Your task to perform on an android device: uninstall "Calculator" Image 0: 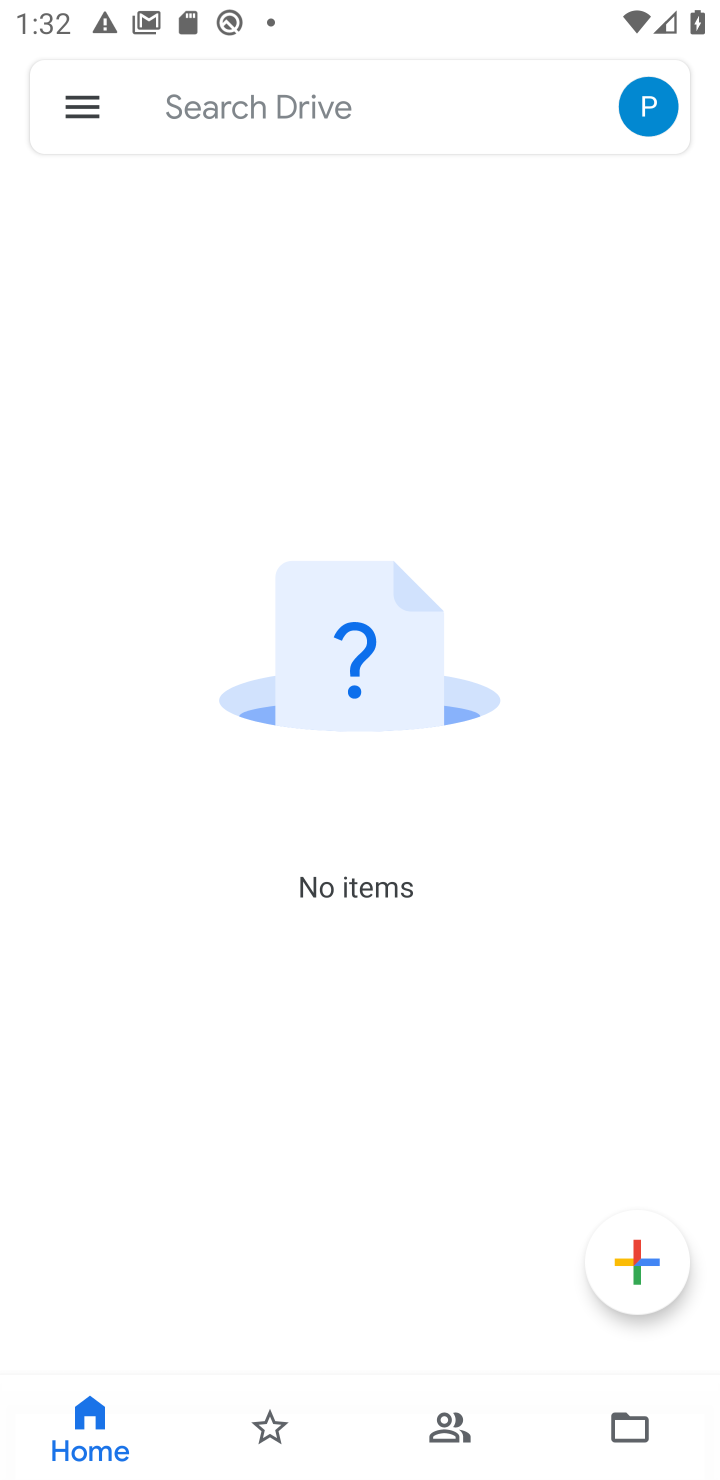
Step 0: press back button
Your task to perform on an android device: uninstall "Calculator" Image 1: 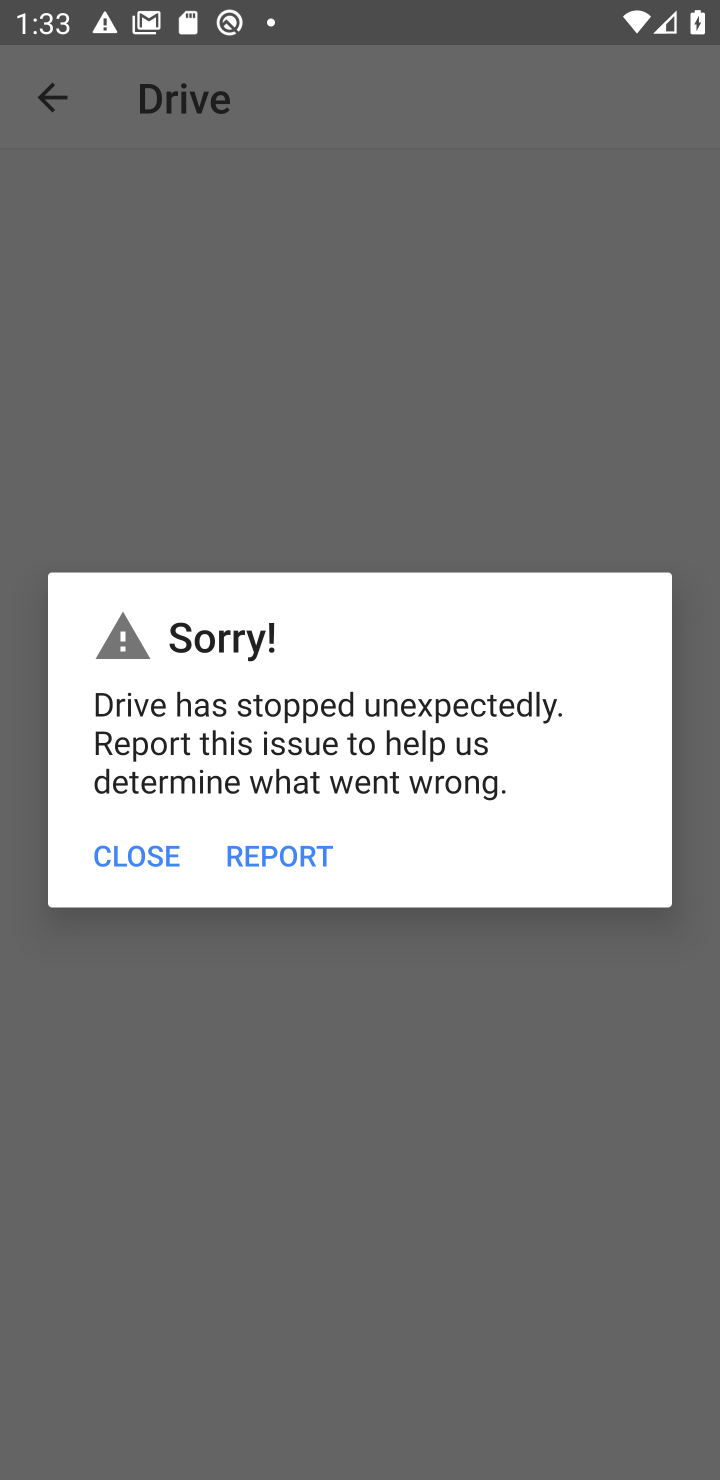
Step 1: press home button
Your task to perform on an android device: uninstall "Calculator" Image 2: 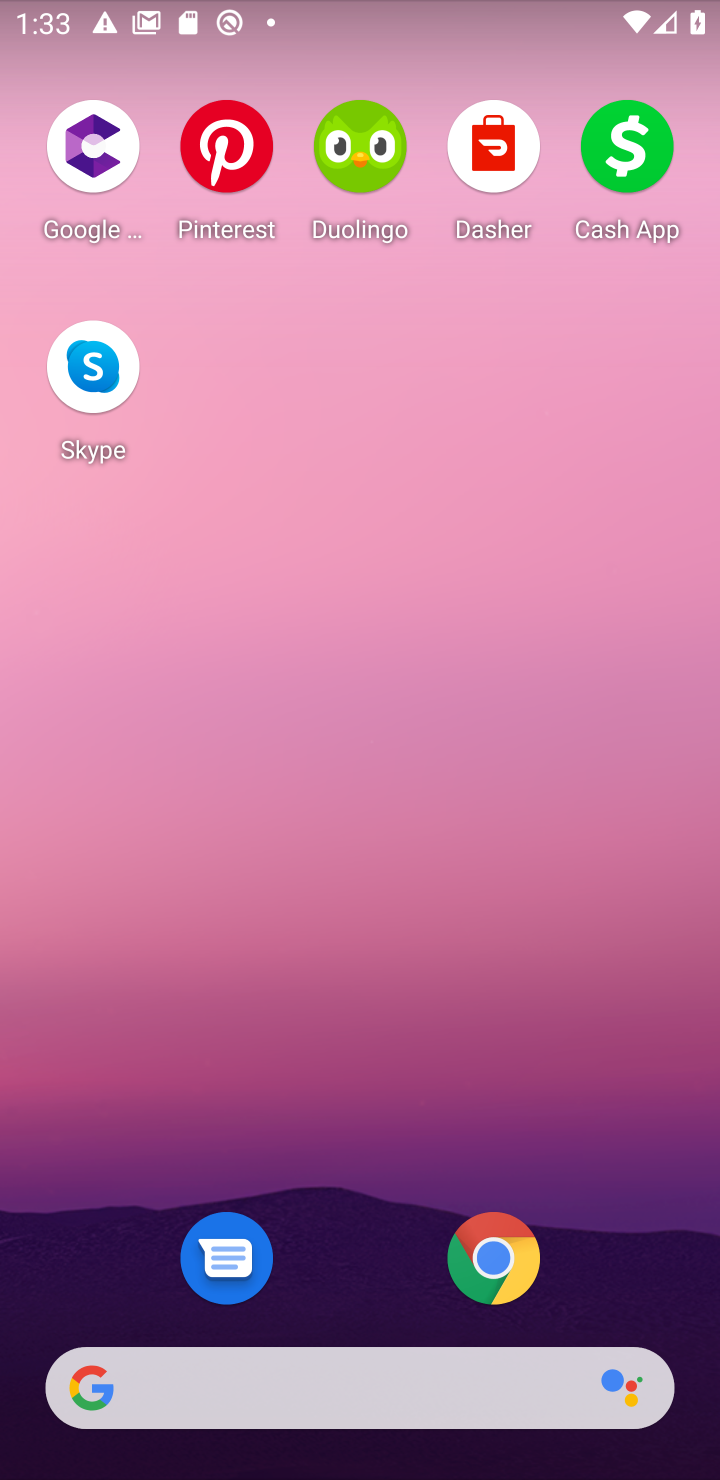
Step 2: drag from (412, 850) to (539, 107)
Your task to perform on an android device: uninstall "Calculator" Image 3: 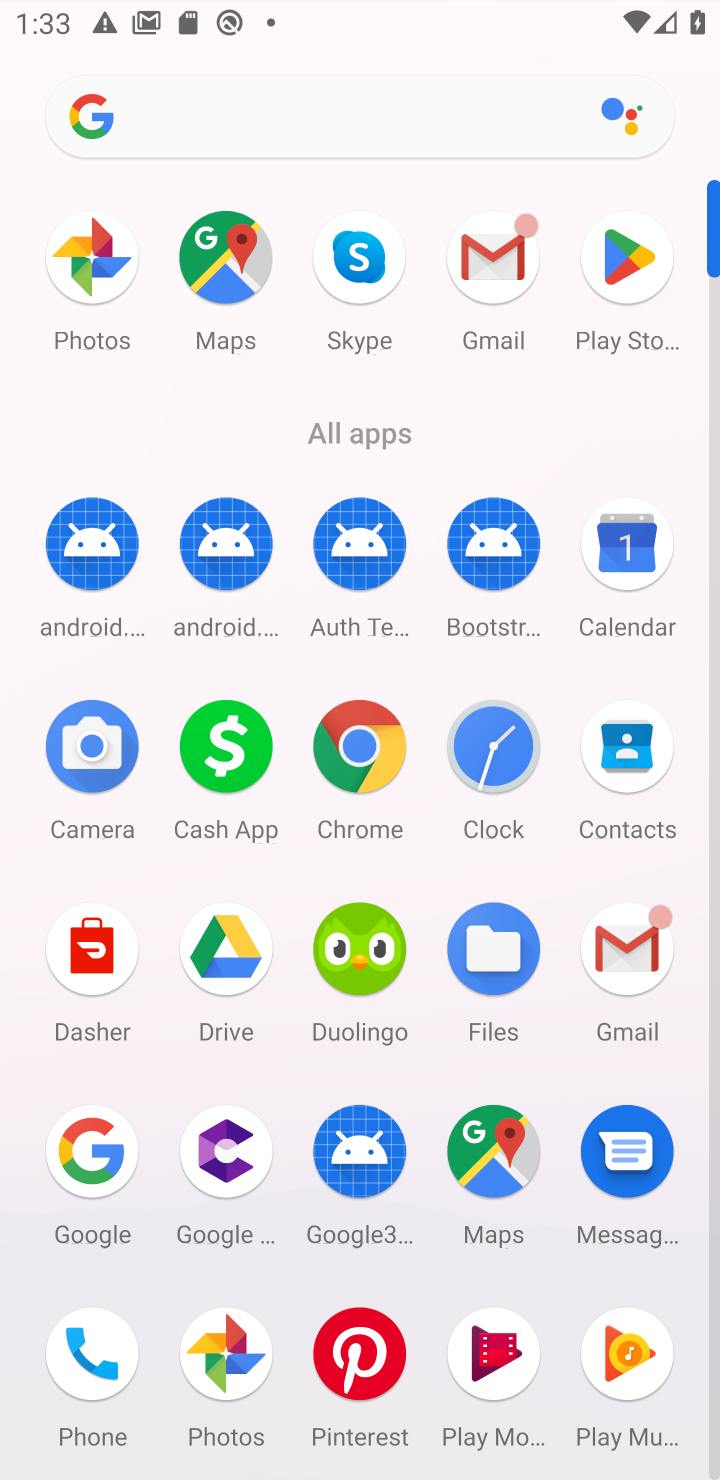
Step 3: click (631, 272)
Your task to perform on an android device: uninstall "Calculator" Image 4: 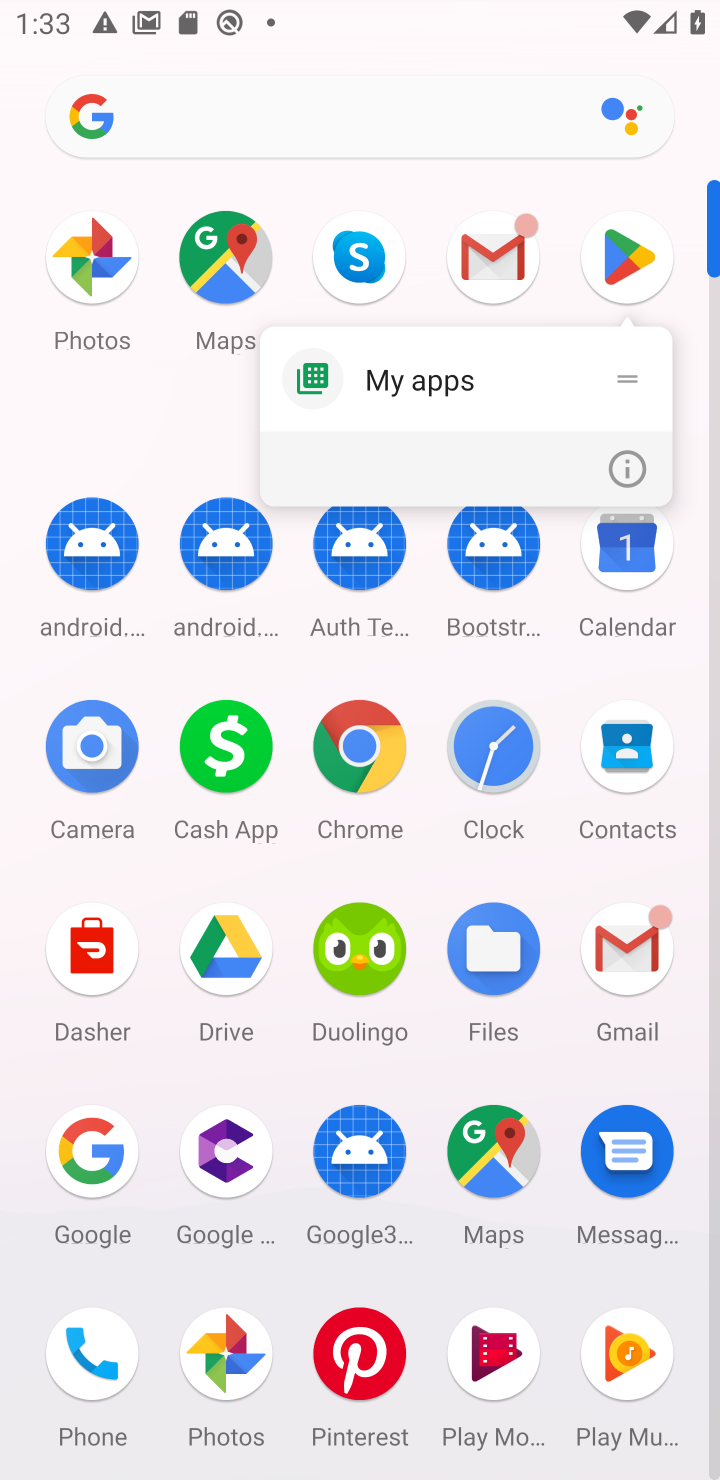
Step 4: click (643, 233)
Your task to perform on an android device: uninstall "Calculator" Image 5: 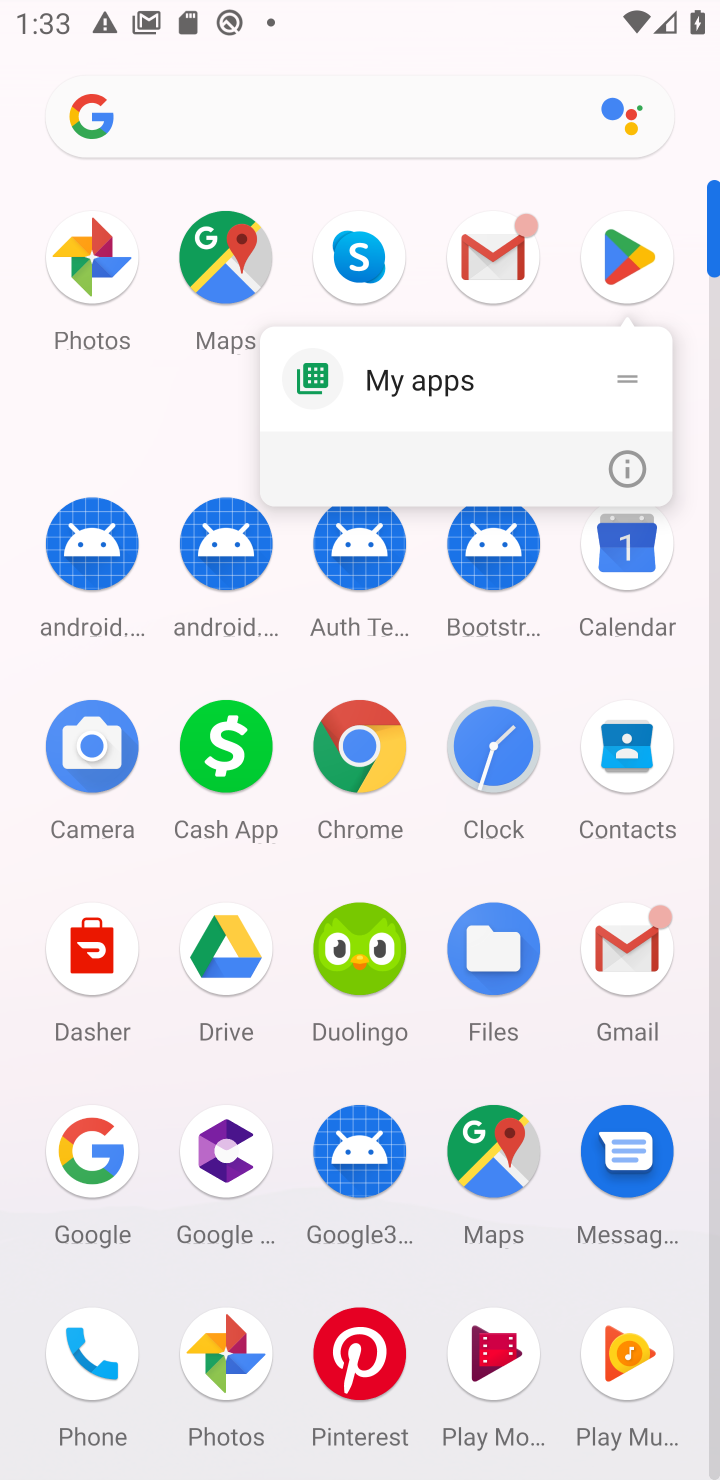
Step 5: click (632, 250)
Your task to perform on an android device: uninstall "Calculator" Image 6: 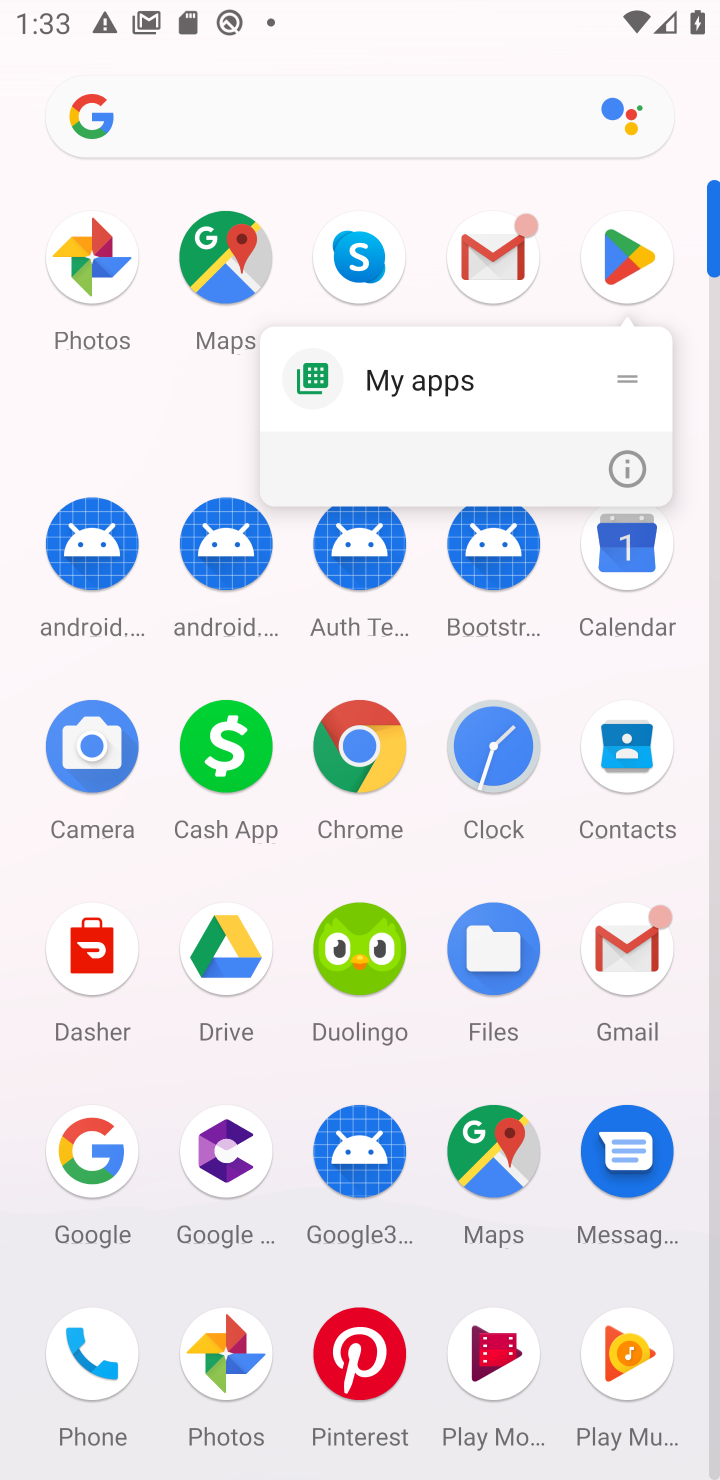
Step 6: click (628, 257)
Your task to perform on an android device: uninstall "Calculator" Image 7: 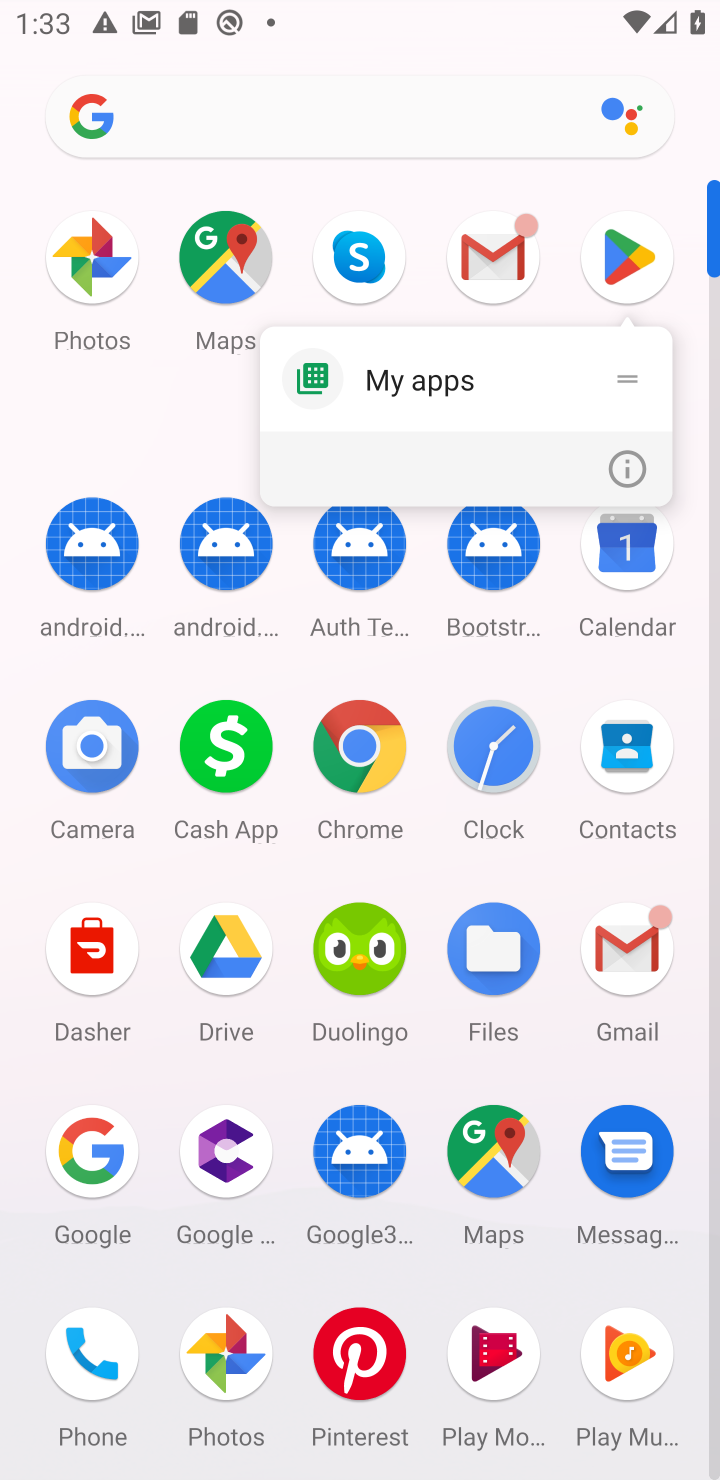
Step 7: click (639, 245)
Your task to perform on an android device: uninstall "Calculator" Image 8: 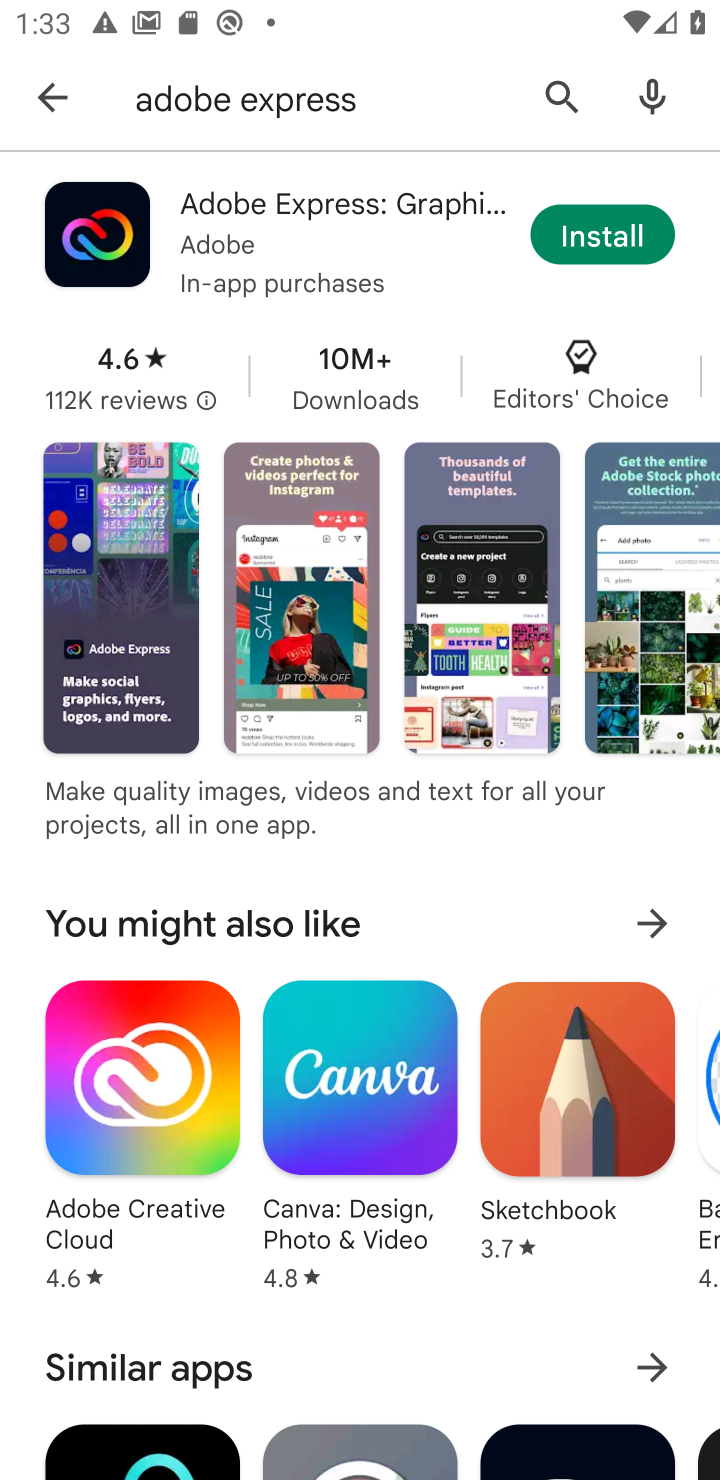
Step 8: click (629, 251)
Your task to perform on an android device: uninstall "Calculator" Image 9: 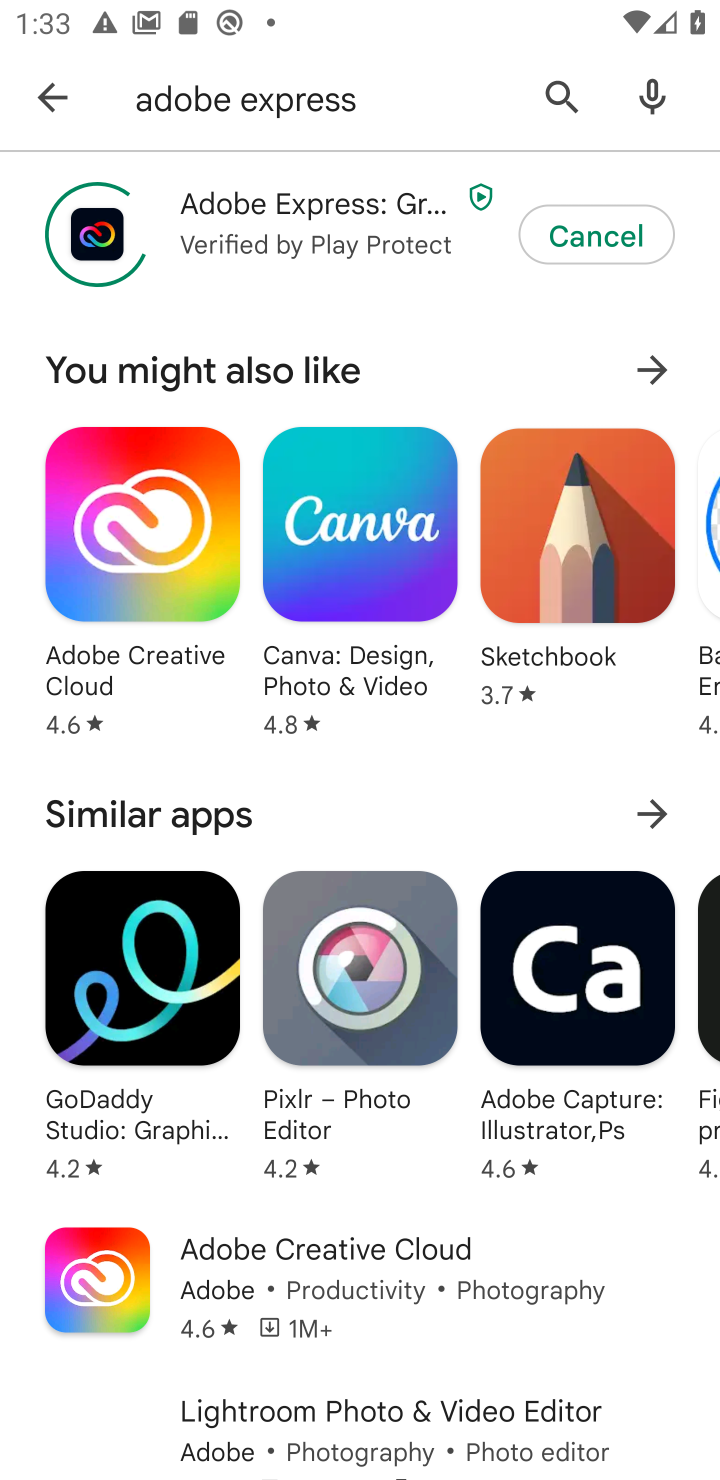
Step 9: click (635, 247)
Your task to perform on an android device: uninstall "Calculator" Image 10: 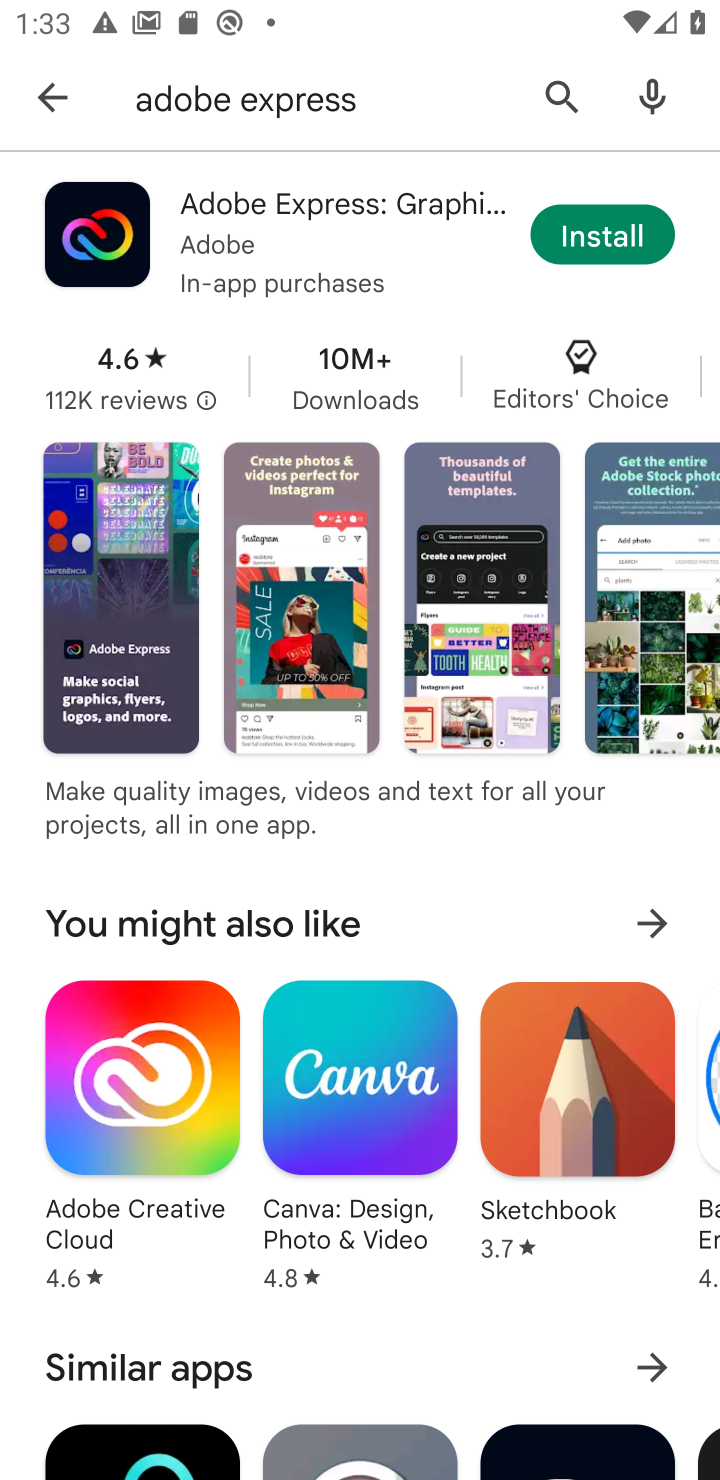
Step 10: click (560, 89)
Your task to perform on an android device: uninstall "Calculator" Image 11: 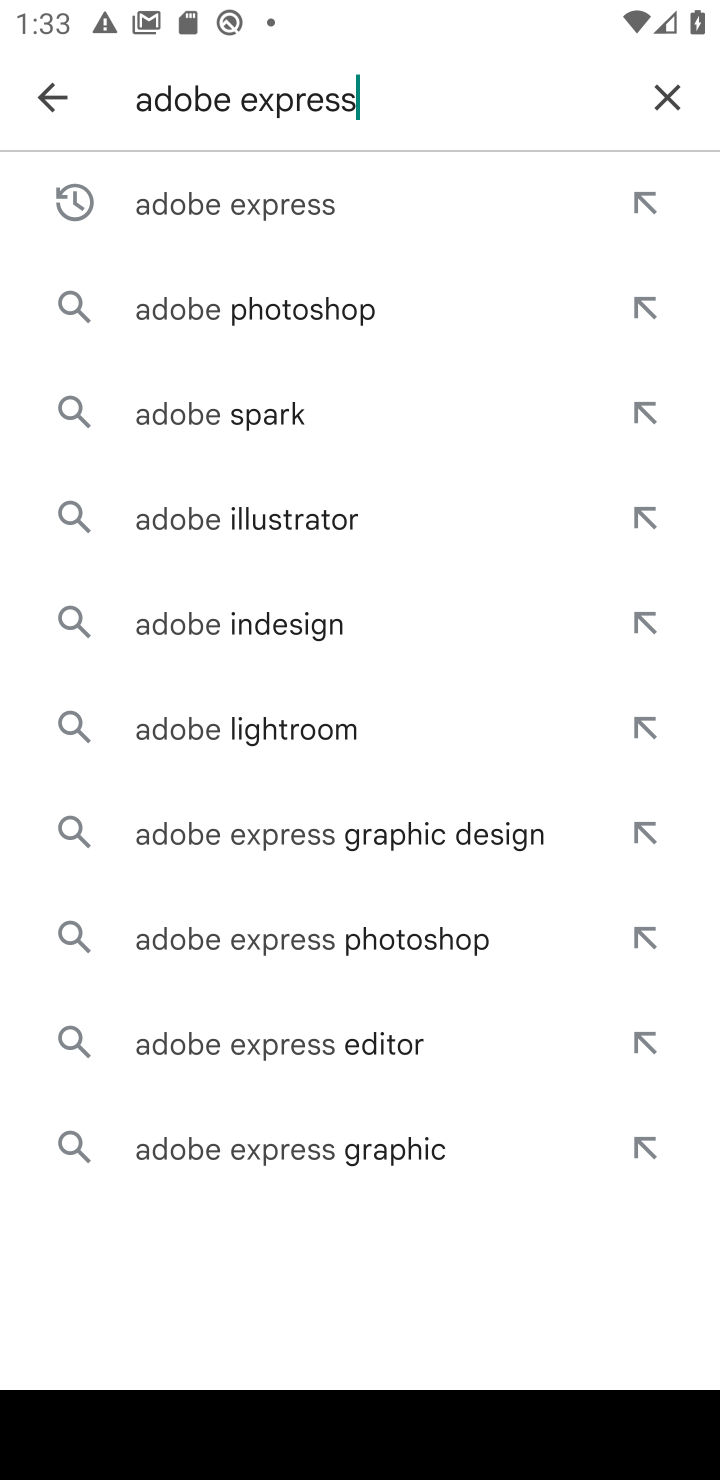
Step 11: click (696, 90)
Your task to perform on an android device: uninstall "Calculator" Image 12: 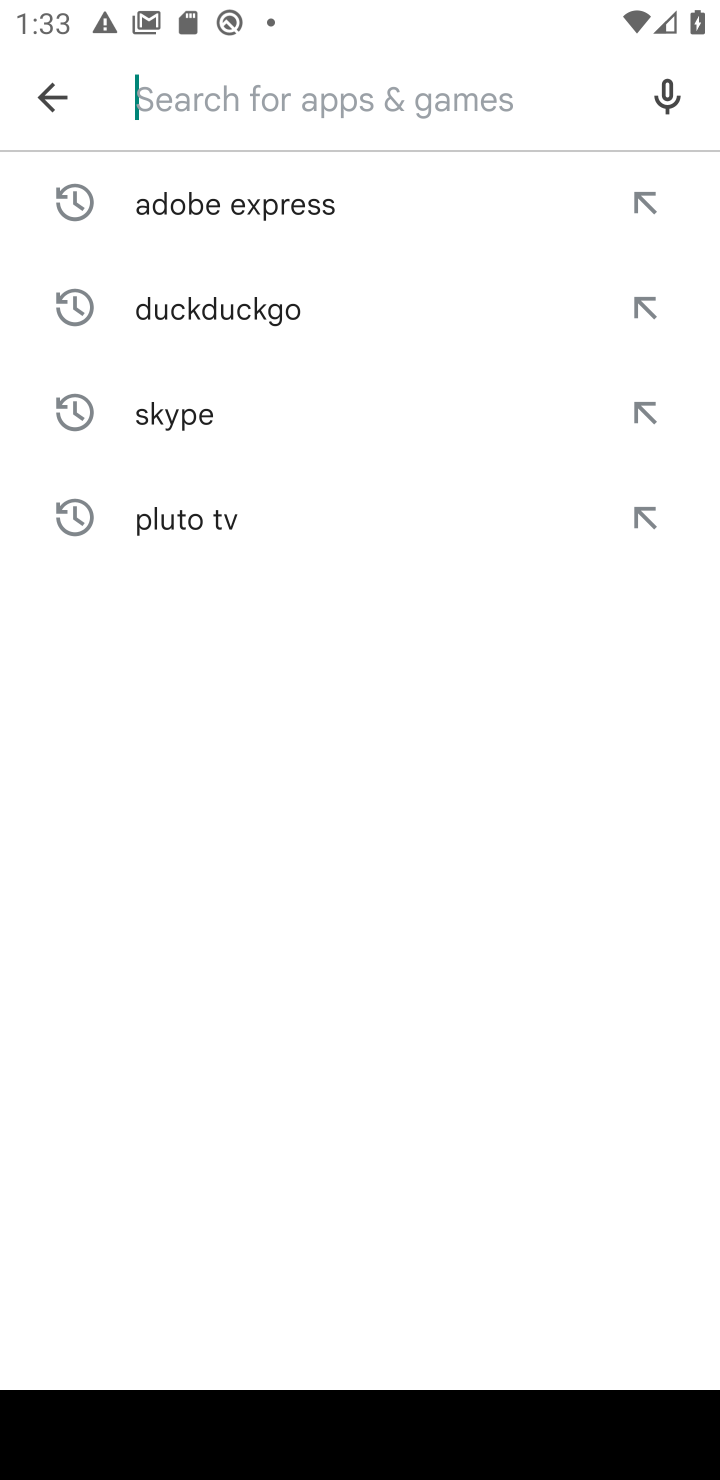
Step 12: click (235, 96)
Your task to perform on an android device: uninstall "Calculator" Image 13: 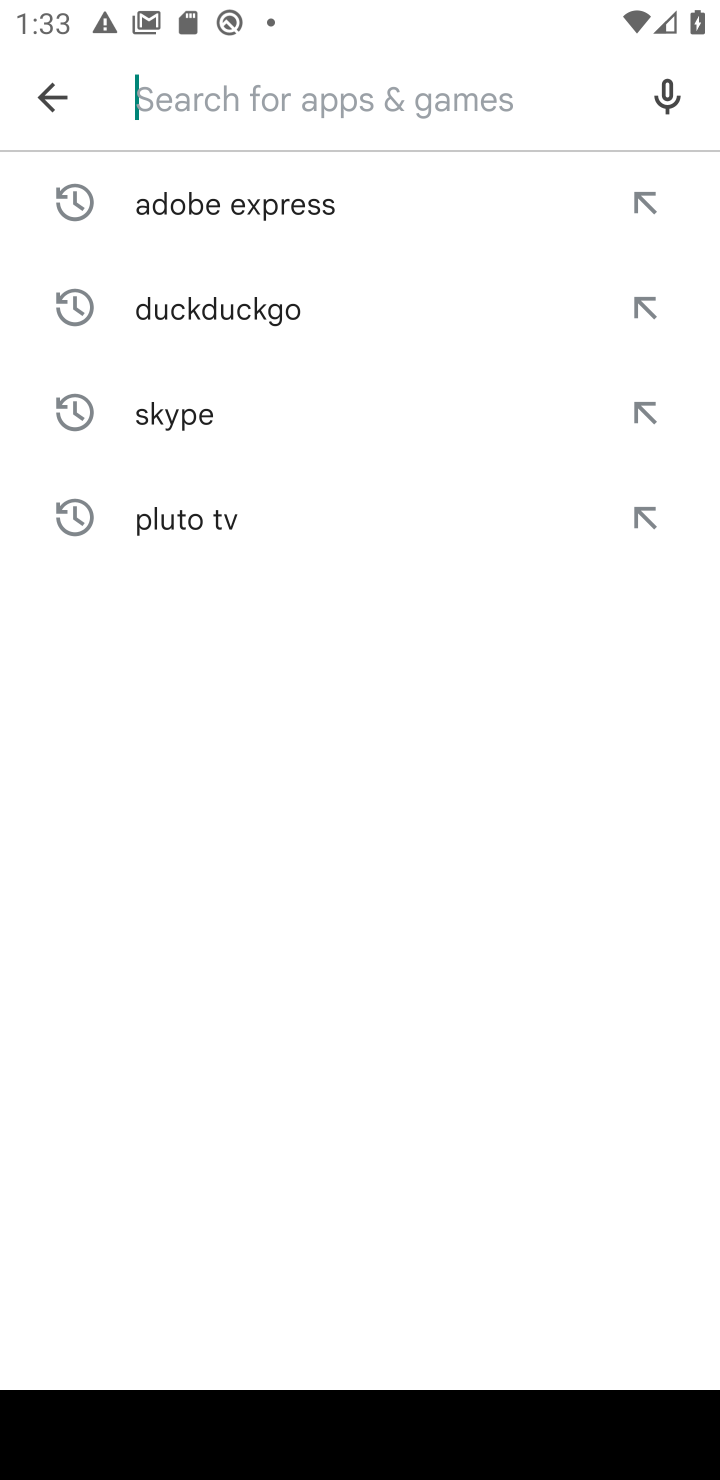
Step 13: type "calculator"
Your task to perform on an android device: uninstall "Calculator" Image 14: 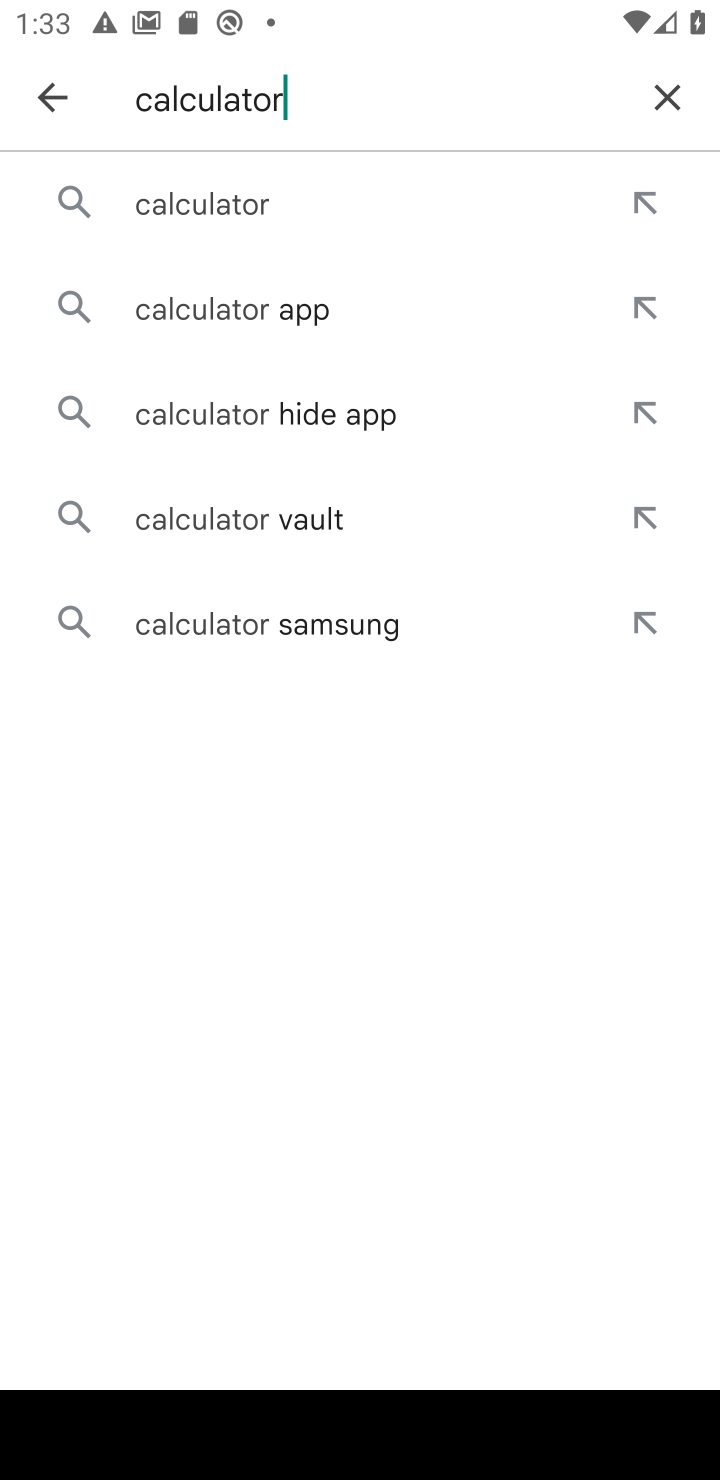
Step 14: click (273, 194)
Your task to perform on an android device: uninstall "Calculator" Image 15: 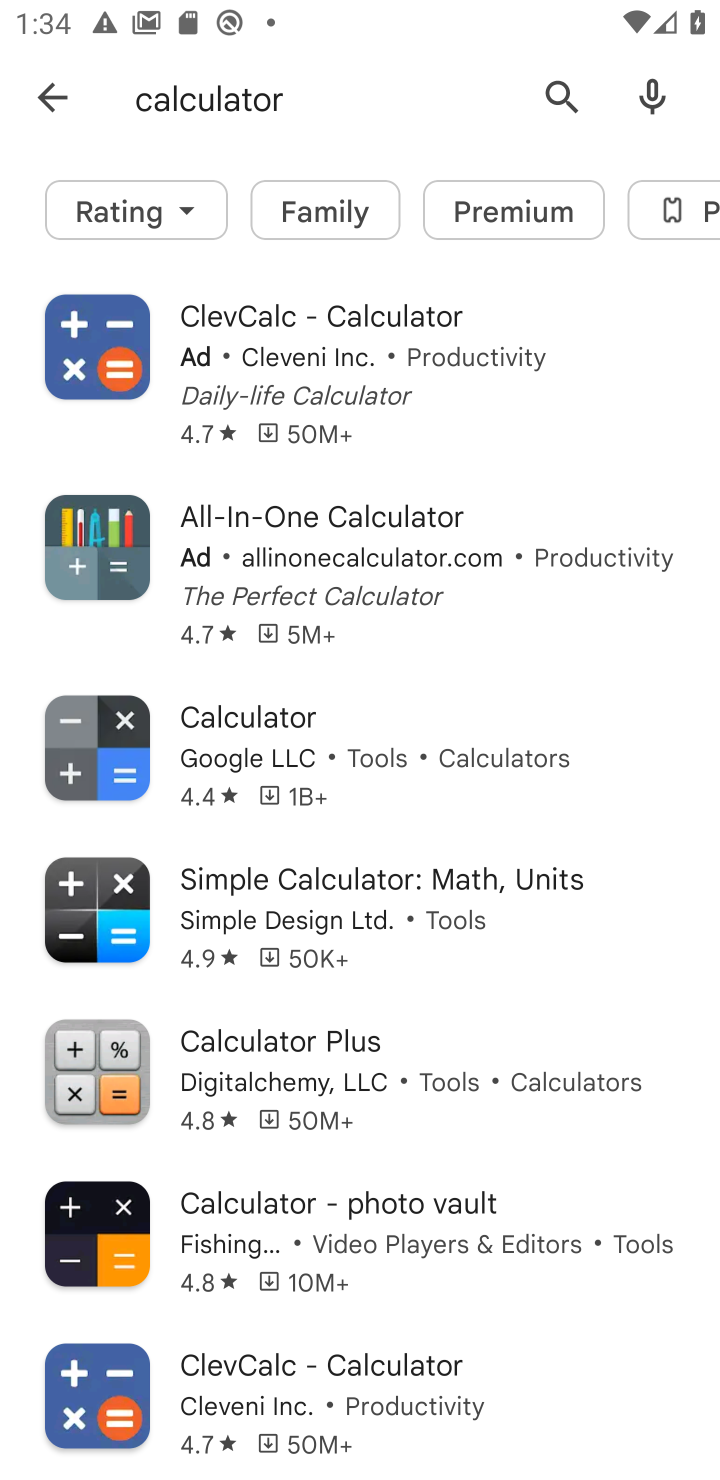
Step 15: task complete